Your task to perform on an android device: change the clock display to digital Image 0: 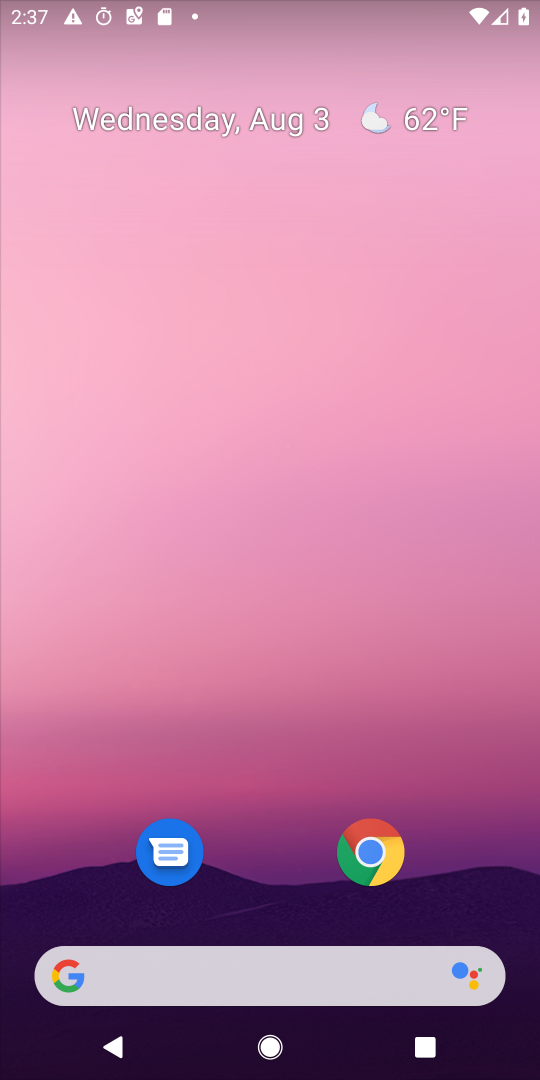
Step 0: drag from (479, 839) to (155, 18)
Your task to perform on an android device: change the clock display to digital Image 1: 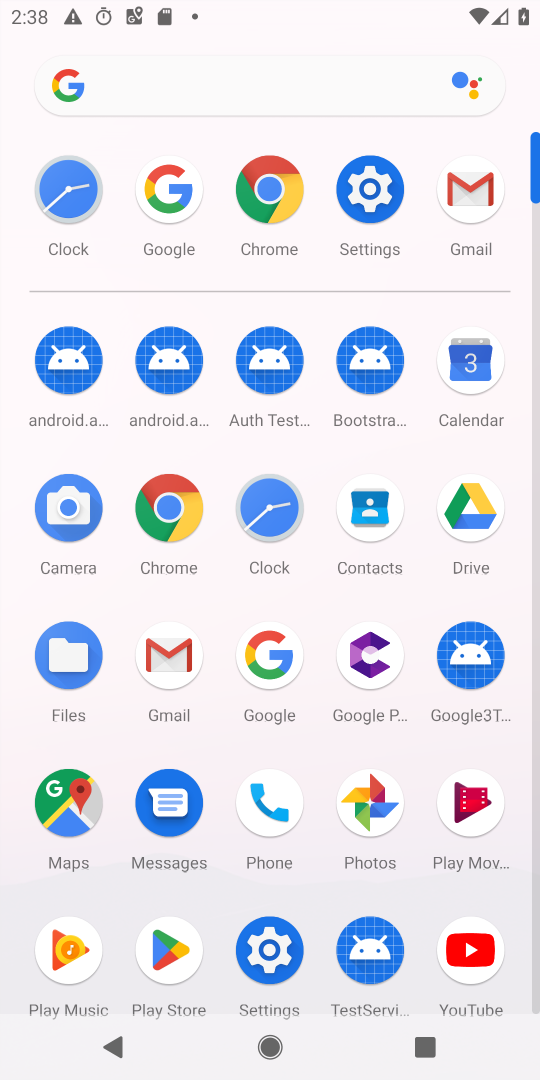
Step 1: click (244, 522)
Your task to perform on an android device: change the clock display to digital Image 2: 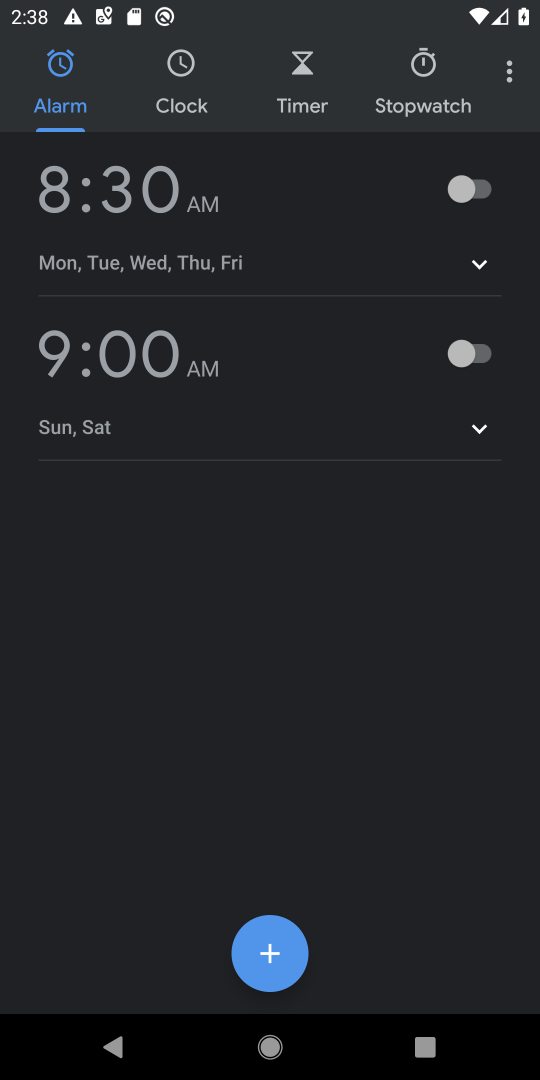
Step 2: click (513, 71)
Your task to perform on an android device: change the clock display to digital Image 3: 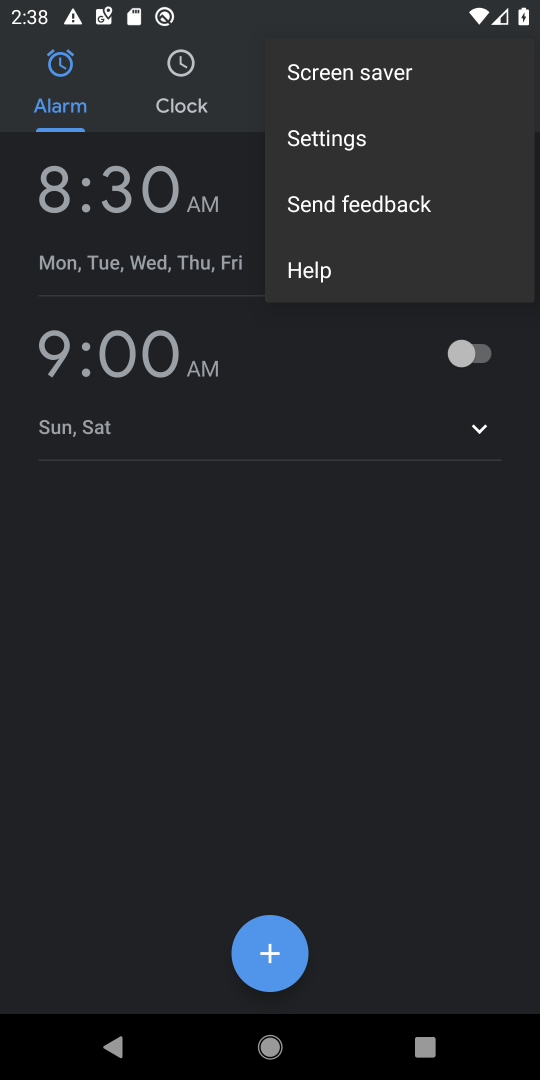
Step 3: click (306, 126)
Your task to perform on an android device: change the clock display to digital Image 4: 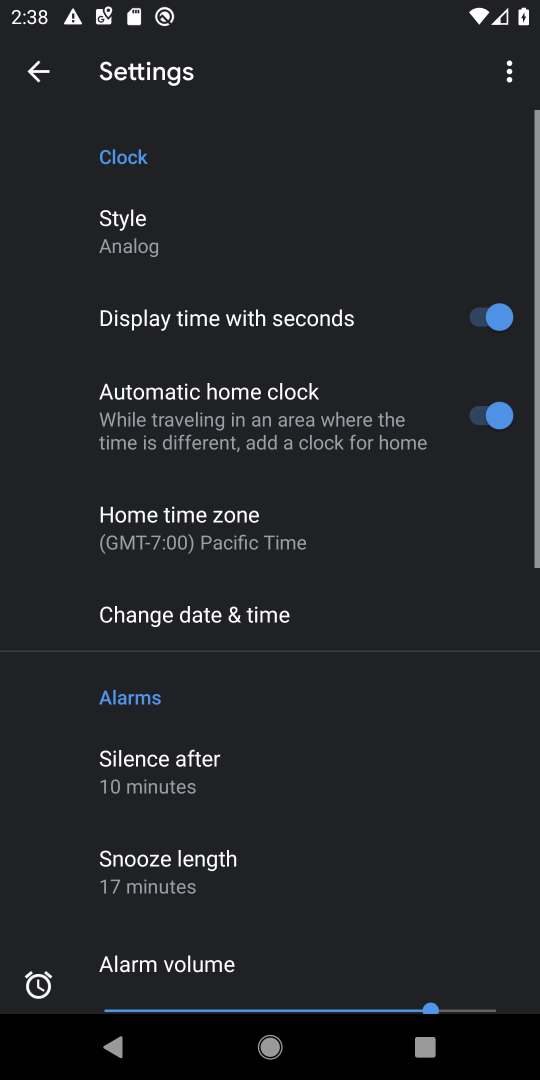
Step 4: click (169, 242)
Your task to perform on an android device: change the clock display to digital Image 5: 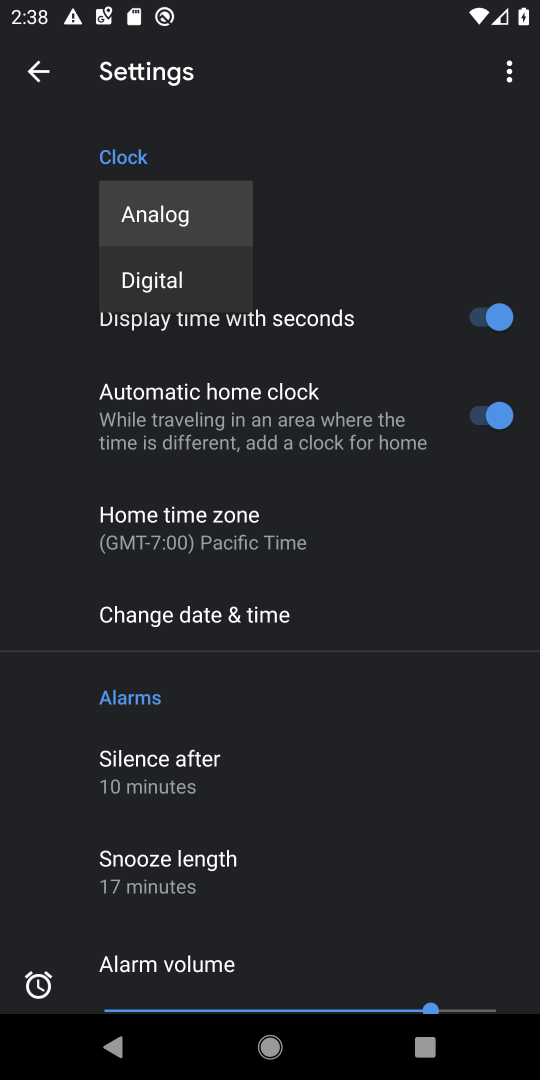
Step 5: click (165, 283)
Your task to perform on an android device: change the clock display to digital Image 6: 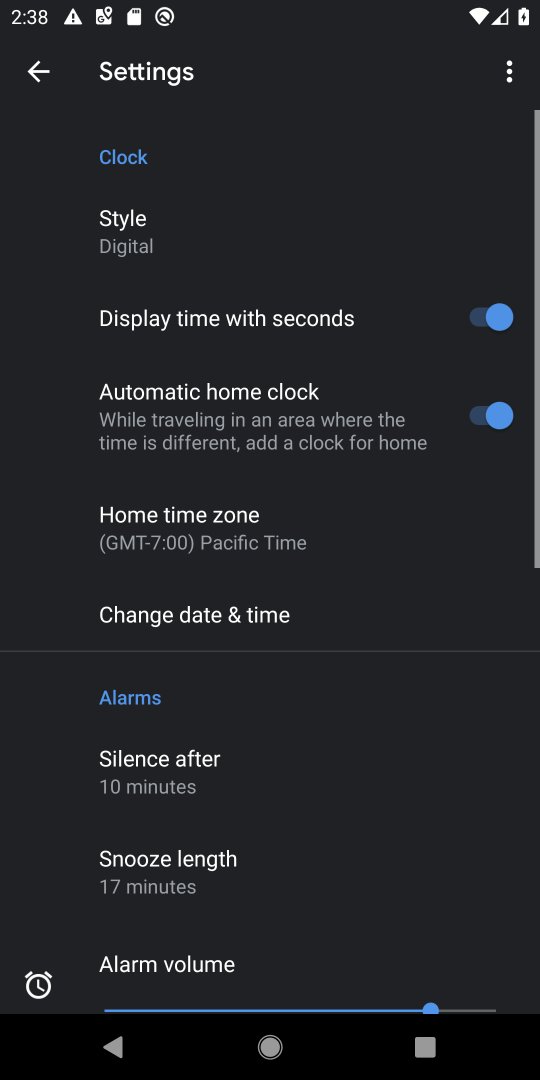
Step 6: task complete